Your task to perform on an android device: turn off priority inbox in the gmail app Image 0: 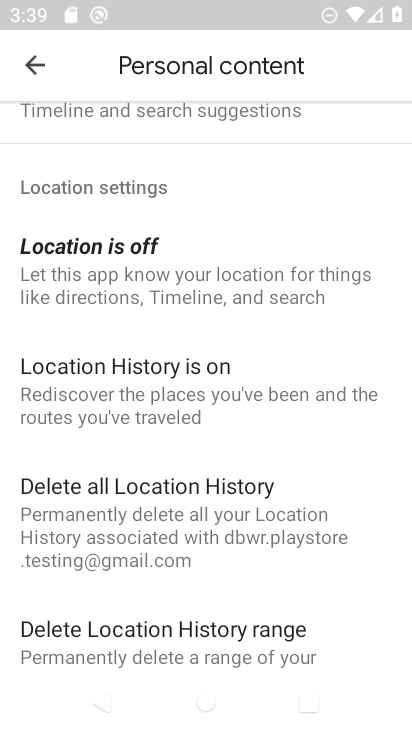
Step 0: press home button
Your task to perform on an android device: turn off priority inbox in the gmail app Image 1: 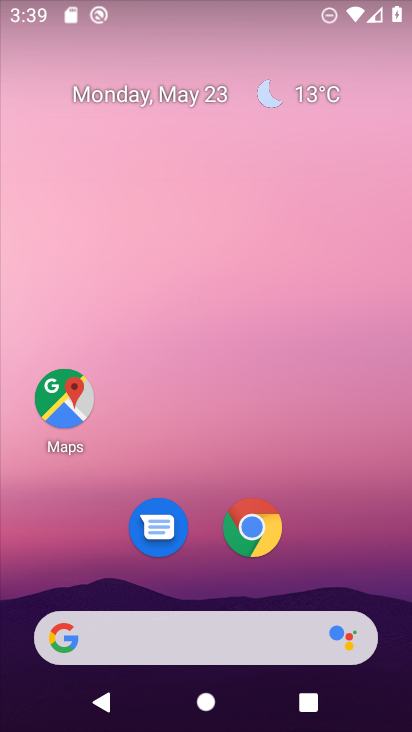
Step 1: drag from (210, 579) to (251, 12)
Your task to perform on an android device: turn off priority inbox in the gmail app Image 2: 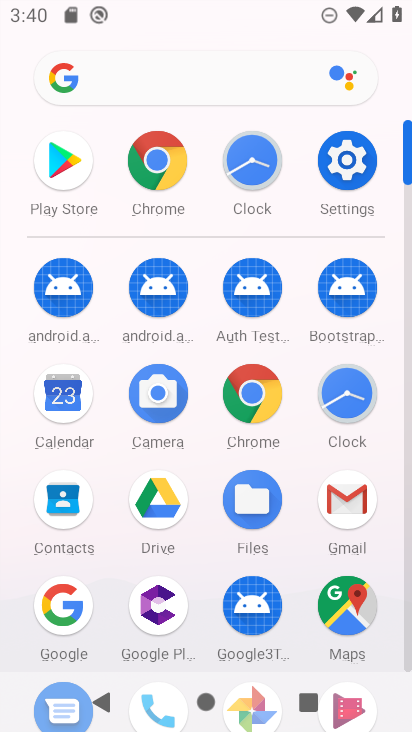
Step 2: click (345, 495)
Your task to perform on an android device: turn off priority inbox in the gmail app Image 3: 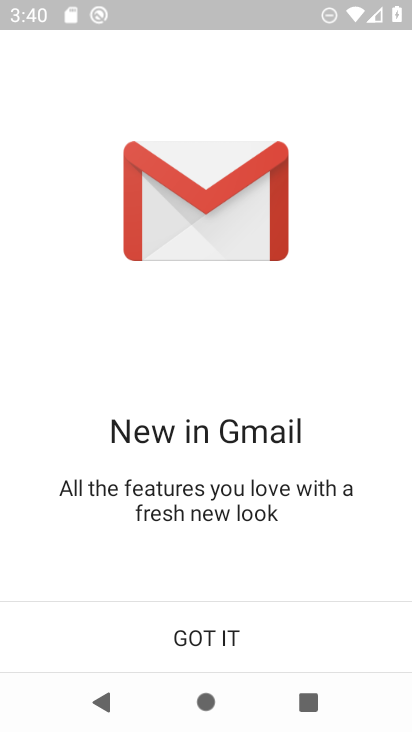
Step 3: click (202, 631)
Your task to perform on an android device: turn off priority inbox in the gmail app Image 4: 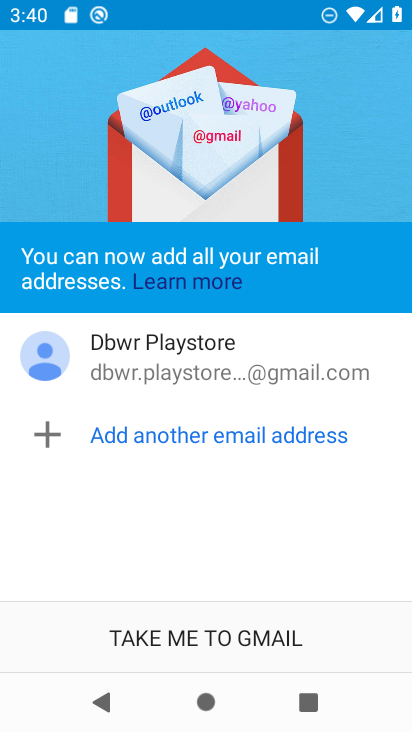
Step 4: click (202, 651)
Your task to perform on an android device: turn off priority inbox in the gmail app Image 5: 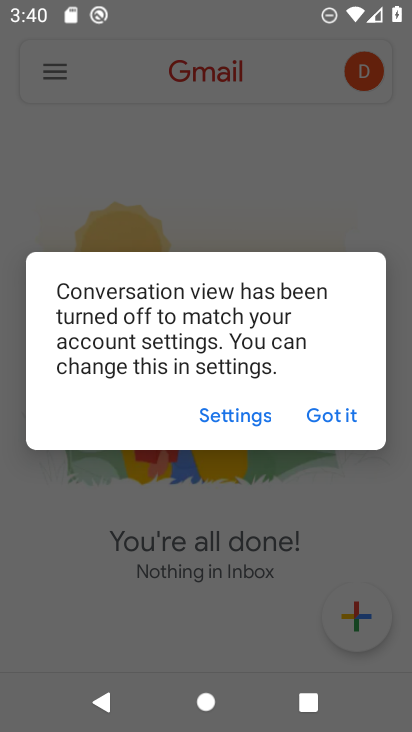
Step 5: click (335, 414)
Your task to perform on an android device: turn off priority inbox in the gmail app Image 6: 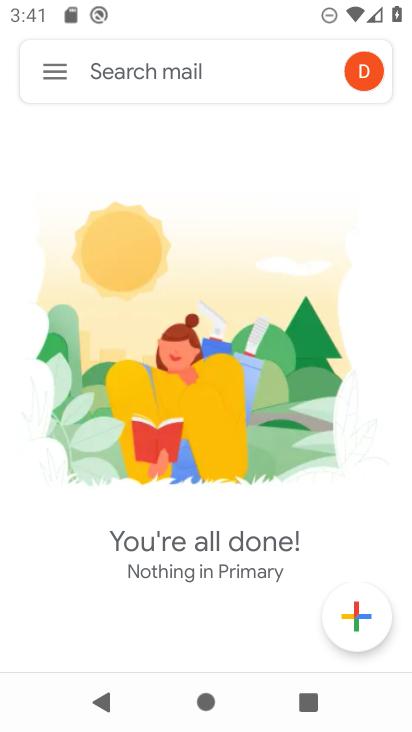
Step 6: click (53, 73)
Your task to perform on an android device: turn off priority inbox in the gmail app Image 7: 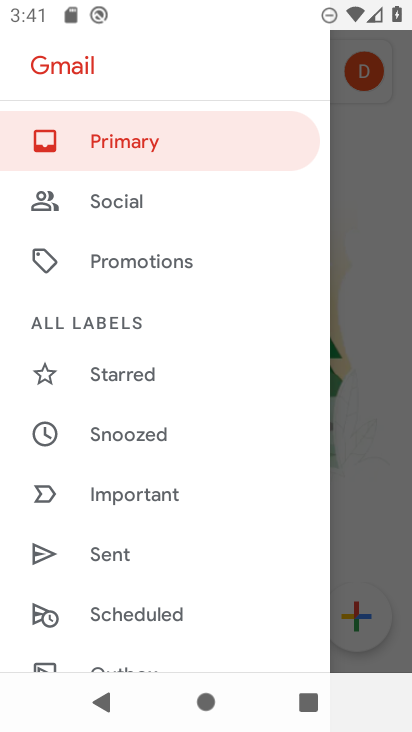
Step 7: drag from (164, 628) to (172, 109)
Your task to perform on an android device: turn off priority inbox in the gmail app Image 8: 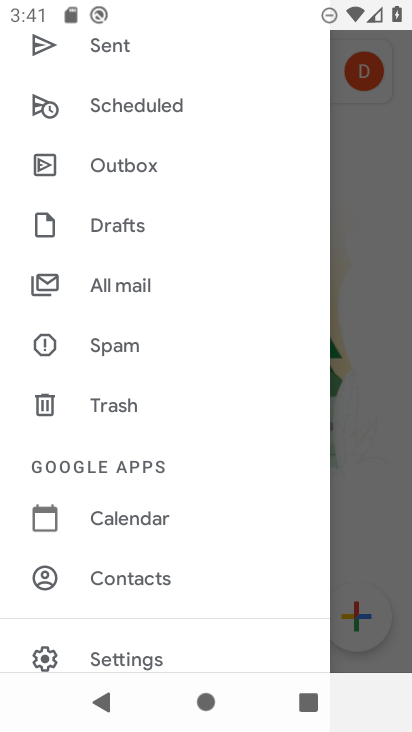
Step 8: click (172, 647)
Your task to perform on an android device: turn off priority inbox in the gmail app Image 9: 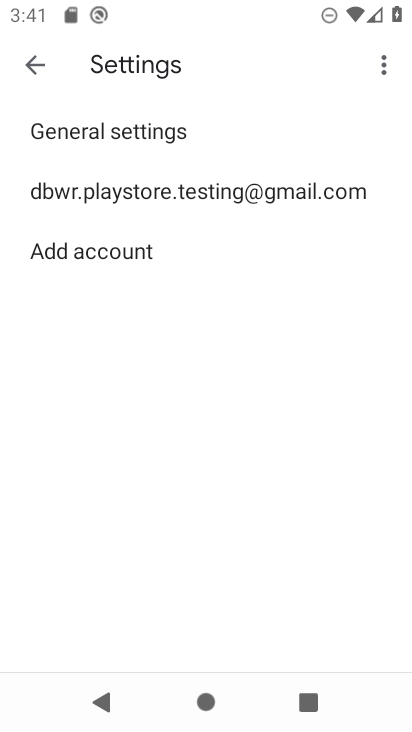
Step 9: click (227, 191)
Your task to perform on an android device: turn off priority inbox in the gmail app Image 10: 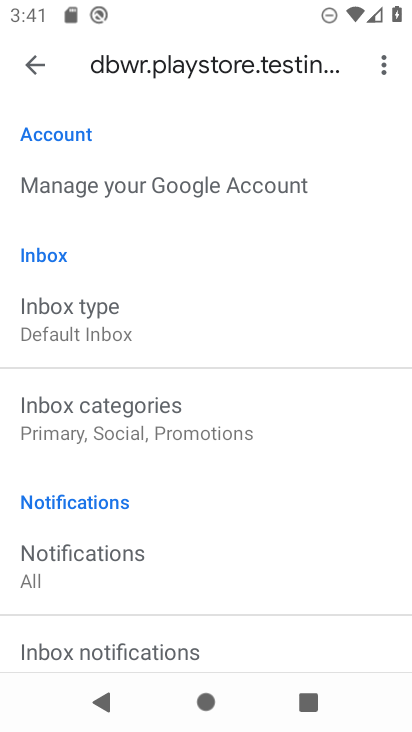
Step 10: click (143, 326)
Your task to perform on an android device: turn off priority inbox in the gmail app Image 11: 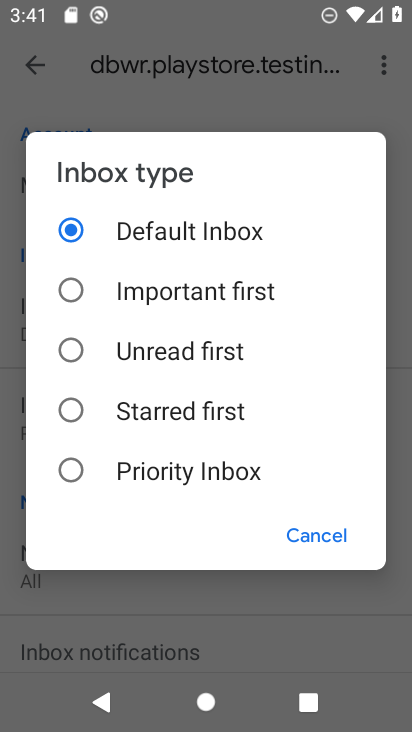
Step 11: click (69, 413)
Your task to perform on an android device: turn off priority inbox in the gmail app Image 12: 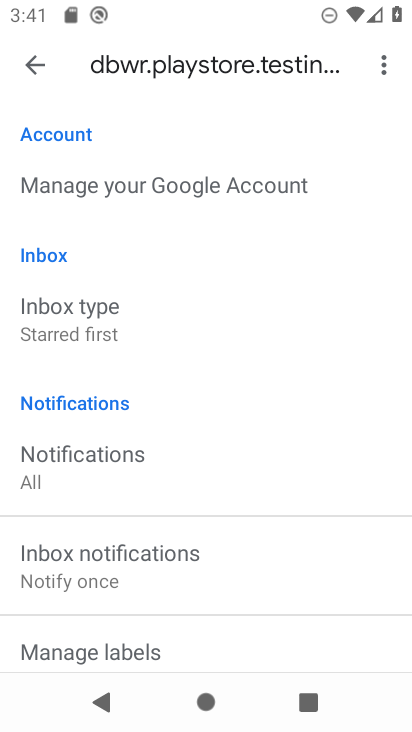
Step 12: task complete